Your task to perform on an android device: Find a good burger place on Maps Image 0: 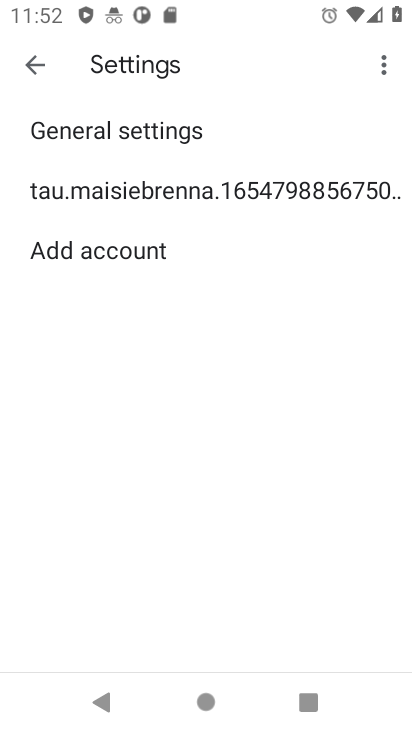
Step 0: press home button
Your task to perform on an android device: Find a good burger place on Maps Image 1: 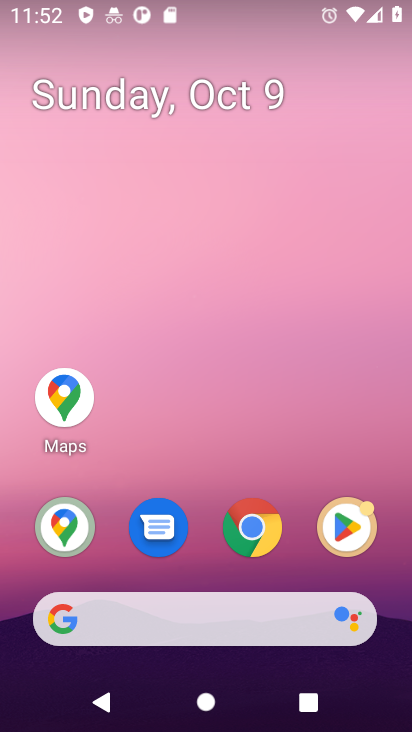
Step 1: click (55, 405)
Your task to perform on an android device: Find a good burger place on Maps Image 2: 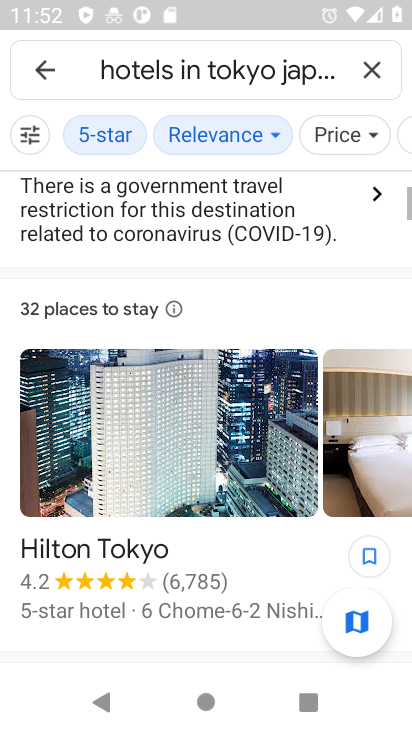
Step 2: click (208, 60)
Your task to perform on an android device: Find a good burger place on Maps Image 3: 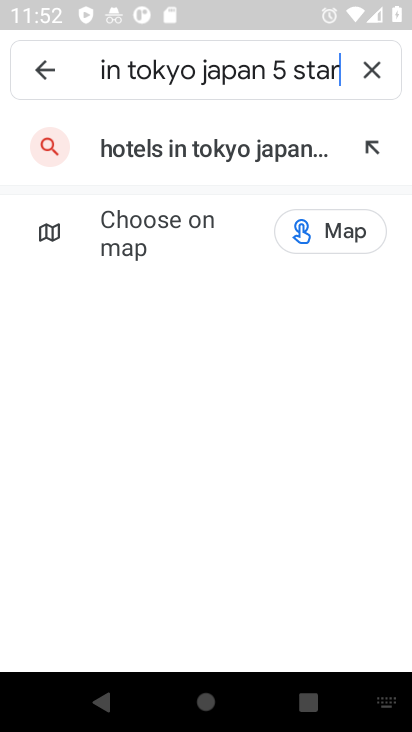
Step 3: click (375, 71)
Your task to perform on an android device: Find a good burger place on Maps Image 4: 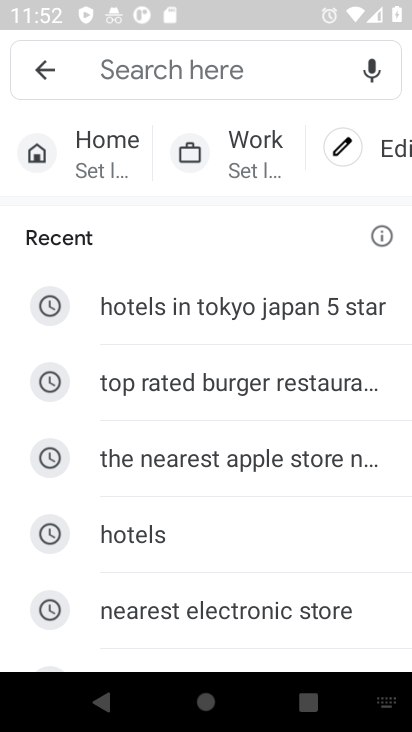
Step 4: type "good burger"
Your task to perform on an android device: Find a good burger place on Maps Image 5: 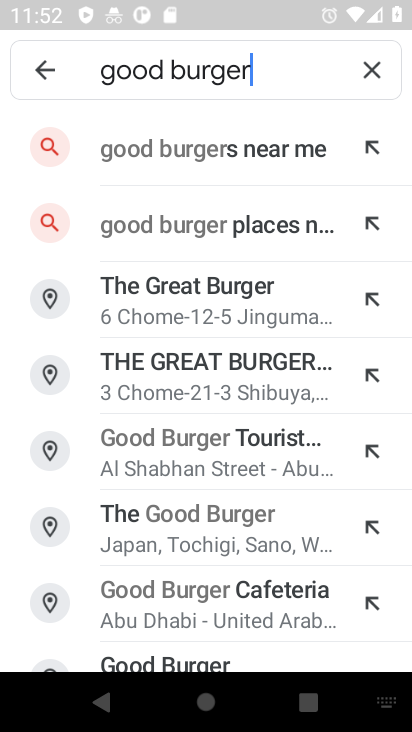
Step 5: click (278, 153)
Your task to perform on an android device: Find a good burger place on Maps Image 6: 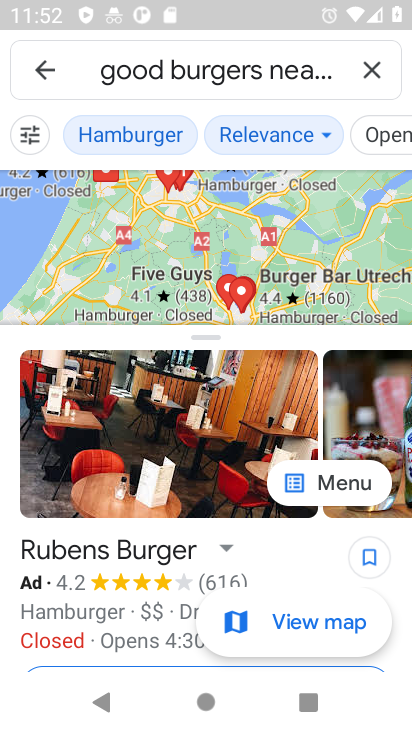
Step 6: task complete